Your task to perform on an android device: turn off notifications in google photos Image 0: 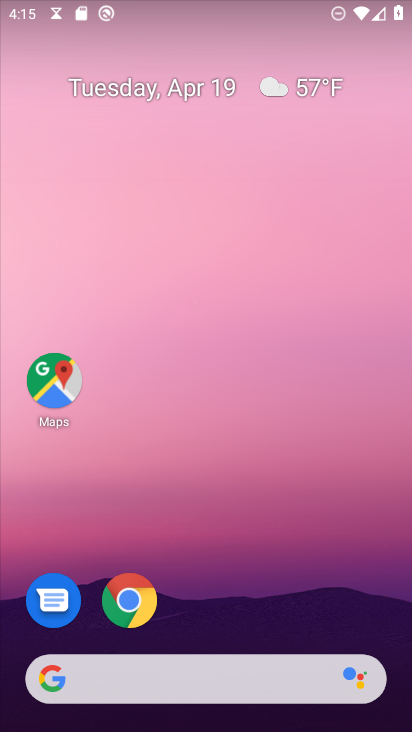
Step 0: drag from (333, 556) to (278, 22)
Your task to perform on an android device: turn off notifications in google photos Image 1: 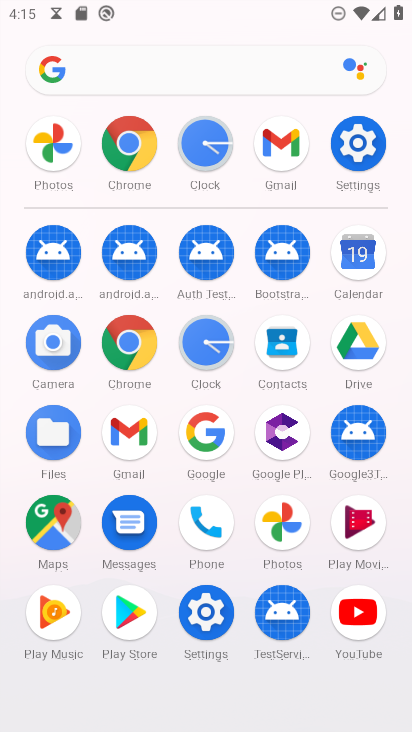
Step 1: click (56, 136)
Your task to perform on an android device: turn off notifications in google photos Image 2: 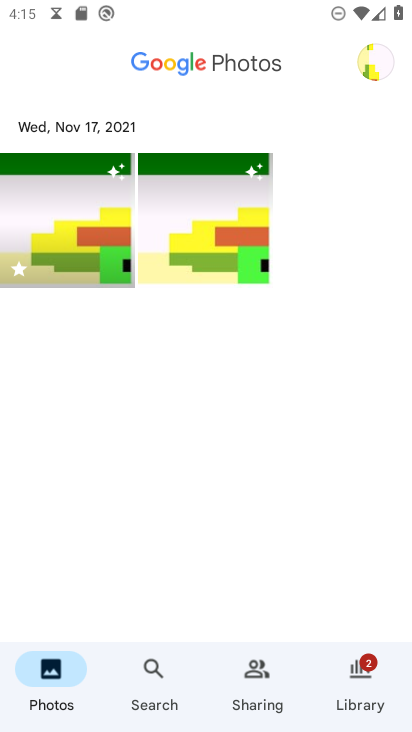
Step 2: click (373, 75)
Your task to perform on an android device: turn off notifications in google photos Image 3: 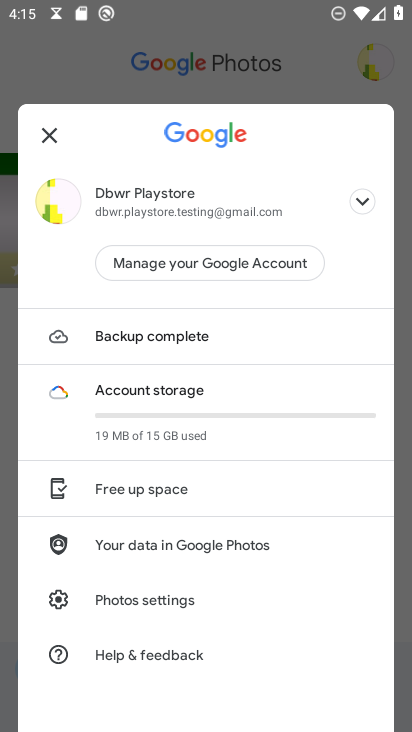
Step 3: click (203, 597)
Your task to perform on an android device: turn off notifications in google photos Image 4: 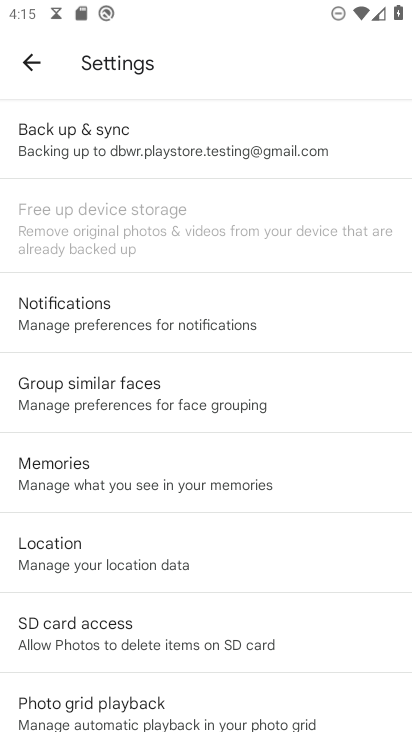
Step 4: click (255, 324)
Your task to perform on an android device: turn off notifications in google photos Image 5: 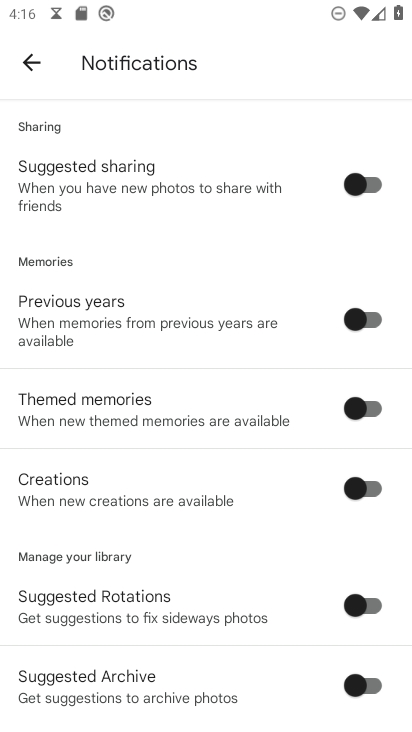
Step 5: drag from (224, 498) to (205, 154)
Your task to perform on an android device: turn off notifications in google photos Image 6: 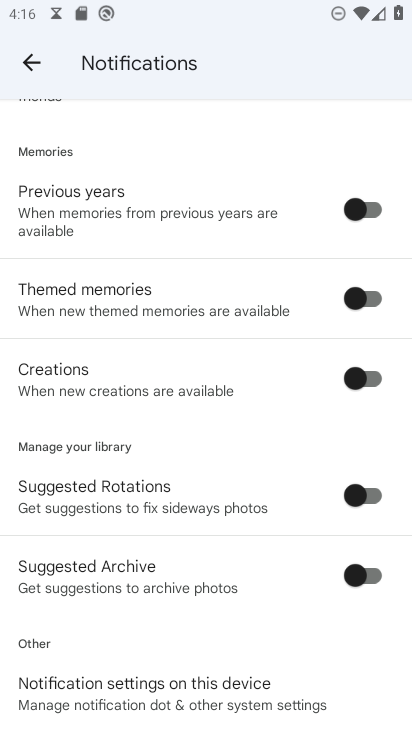
Step 6: click (178, 685)
Your task to perform on an android device: turn off notifications in google photos Image 7: 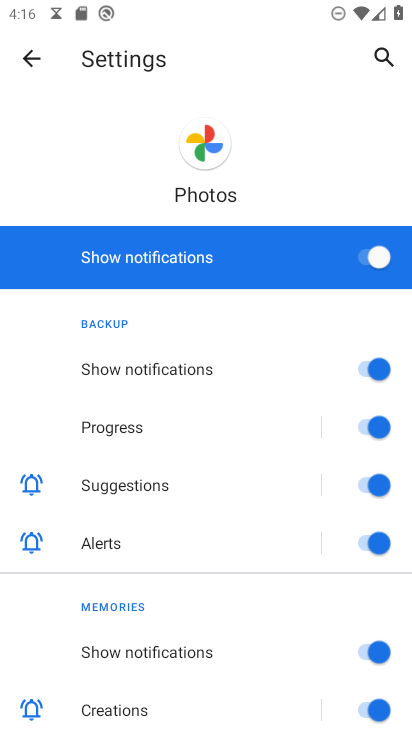
Step 7: click (376, 241)
Your task to perform on an android device: turn off notifications in google photos Image 8: 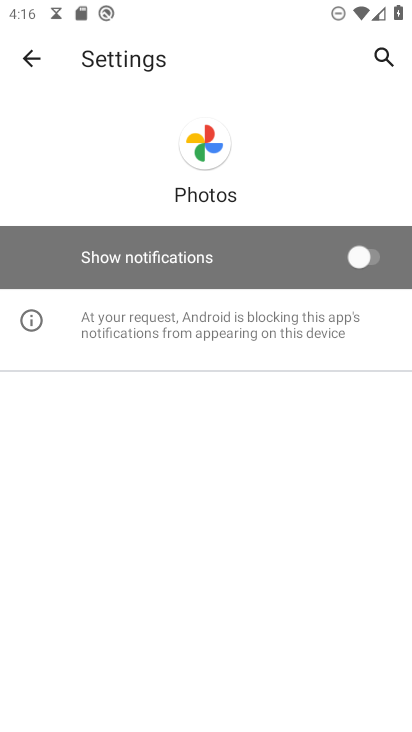
Step 8: task complete